Your task to perform on an android device: turn on location history Image 0: 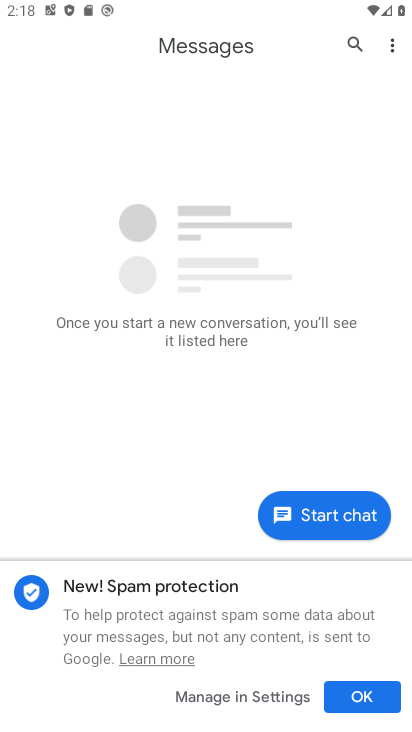
Step 0: drag from (365, 582) to (389, 360)
Your task to perform on an android device: turn on location history Image 1: 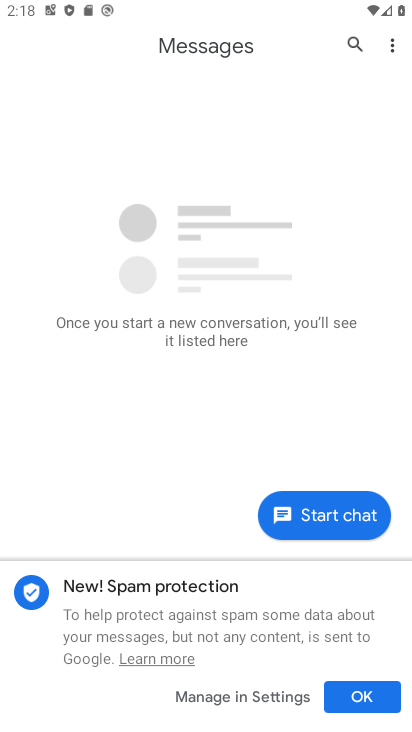
Step 1: press home button
Your task to perform on an android device: turn on location history Image 2: 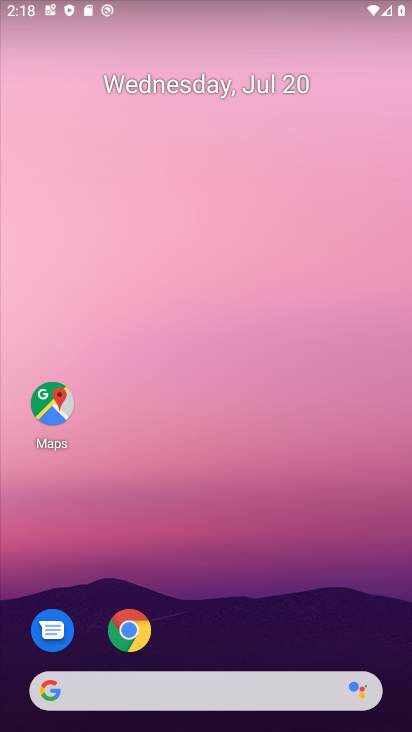
Step 2: drag from (372, 590) to (396, 75)
Your task to perform on an android device: turn on location history Image 3: 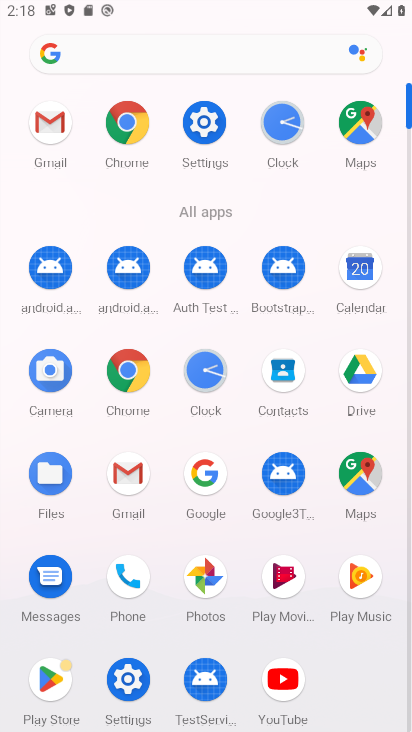
Step 3: click (195, 133)
Your task to perform on an android device: turn on location history Image 4: 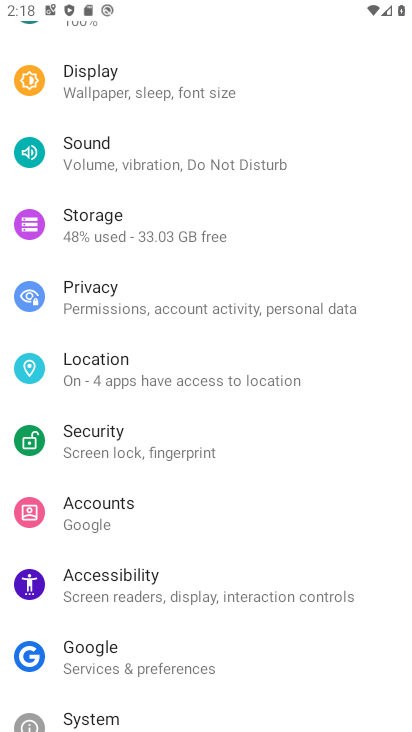
Step 4: drag from (335, 389) to (332, 493)
Your task to perform on an android device: turn on location history Image 5: 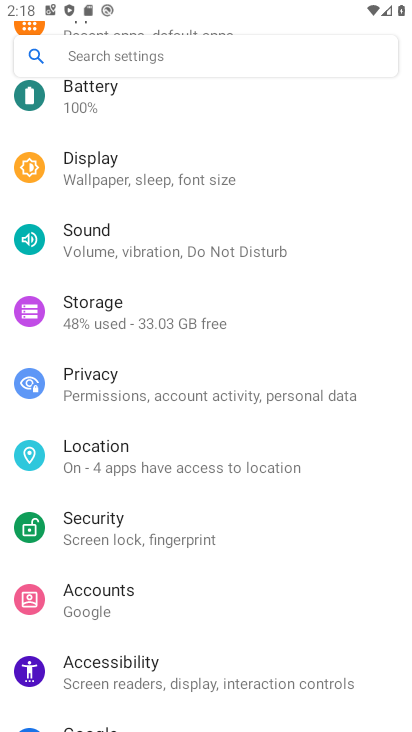
Step 5: click (296, 449)
Your task to perform on an android device: turn on location history Image 6: 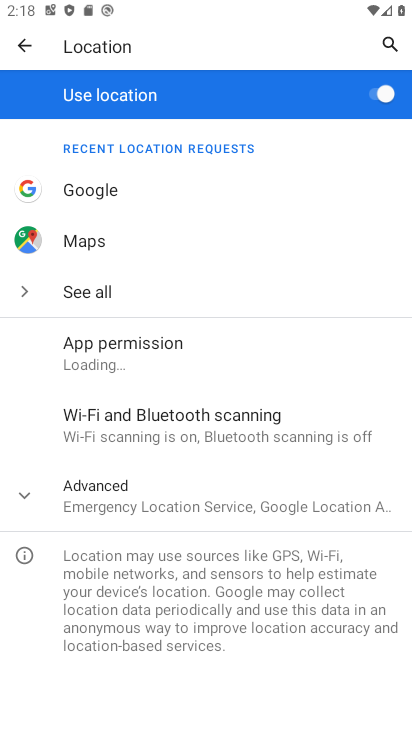
Step 6: click (267, 513)
Your task to perform on an android device: turn on location history Image 7: 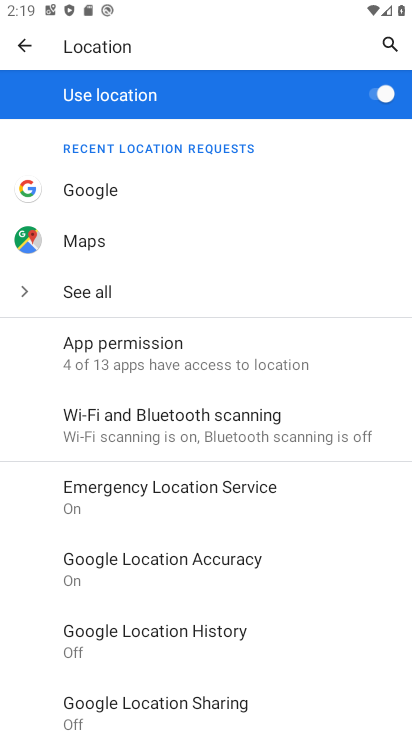
Step 7: drag from (307, 640) to (315, 586)
Your task to perform on an android device: turn on location history Image 8: 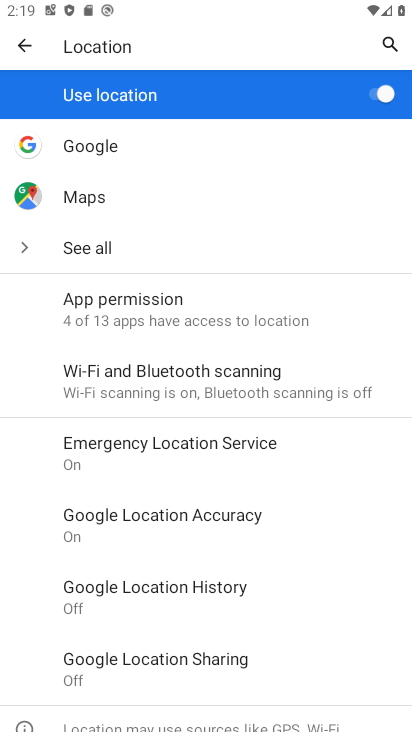
Step 8: click (287, 589)
Your task to perform on an android device: turn on location history Image 9: 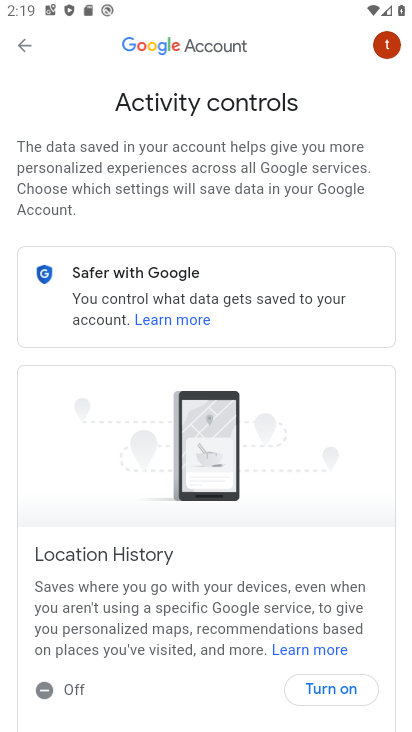
Step 9: click (329, 692)
Your task to perform on an android device: turn on location history Image 10: 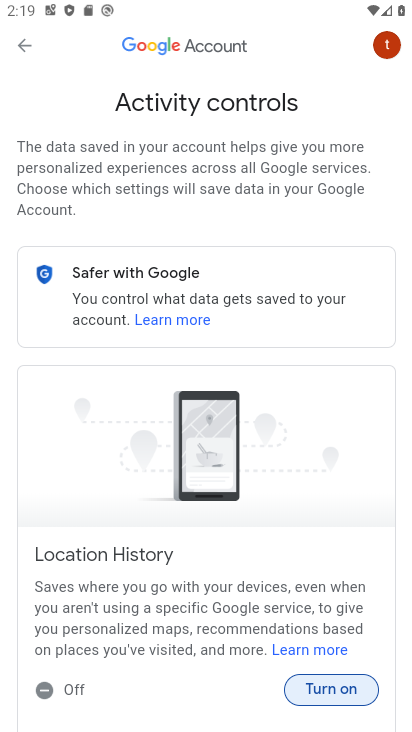
Step 10: click (333, 689)
Your task to perform on an android device: turn on location history Image 11: 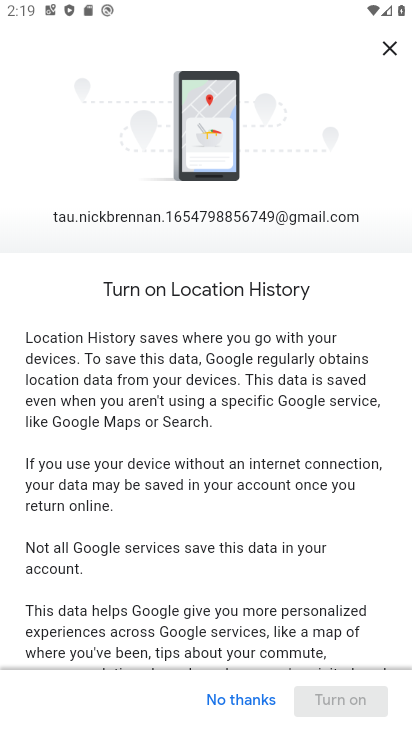
Step 11: drag from (317, 573) to (321, 486)
Your task to perform on an android device: turn on location history Image 12: 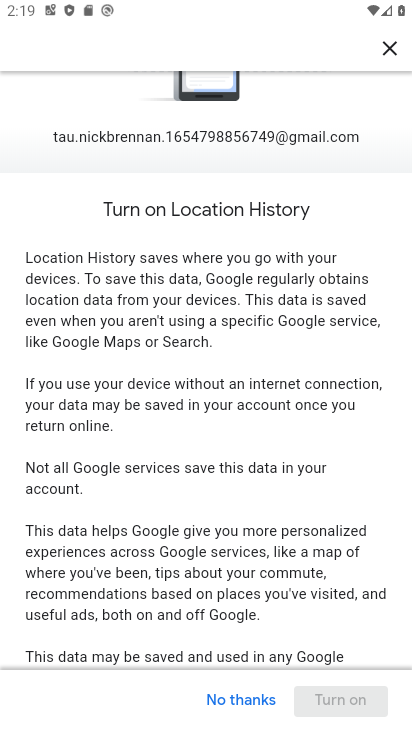
Step 12: drag from (330, 577) to (332, 481)
Your task to perform on an android device: turn on location history Image 13: 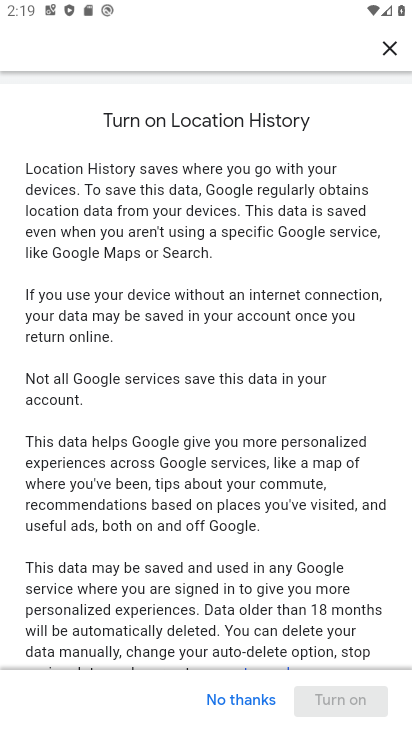
Step 13: drag from (330, 558) to (328, 459)
Your task to perform on an android device: turn on location history Image 14: 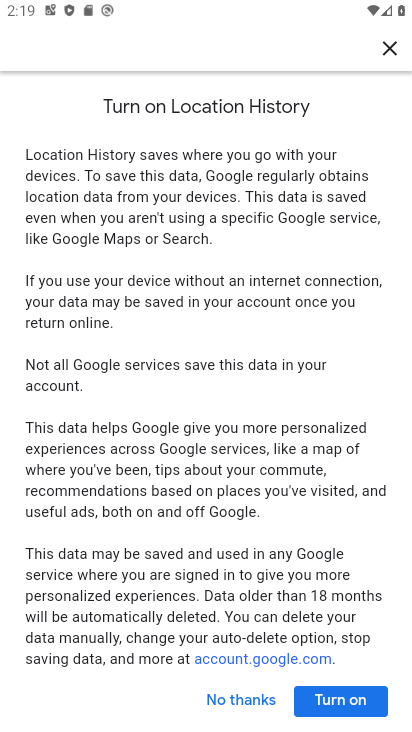
Step 14: click (338, 707)
Your task to perform on an android device: turn on location history Image 15: 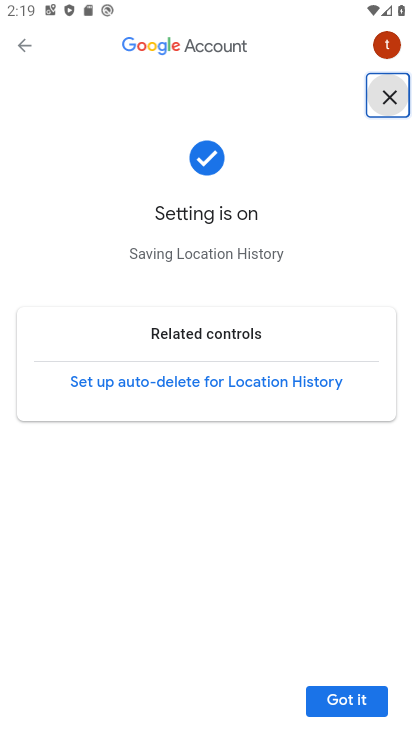
Step 15: task complete